Your task to perform on an android device: check out phone information Image 0: 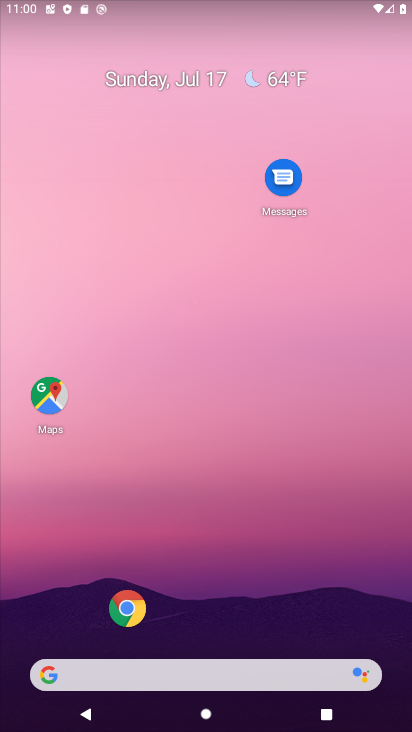
Step 0: drag from (21, 702) to (228, 165)
Your task to perform on an android device: check out phone information Image 1: 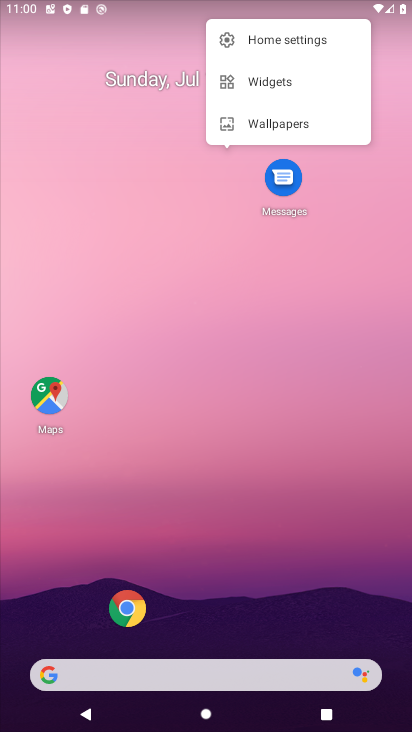
Step 1: drag from (41, 646) to (239, 155)
Your task to perform on an android device: check out phone information Image 2: 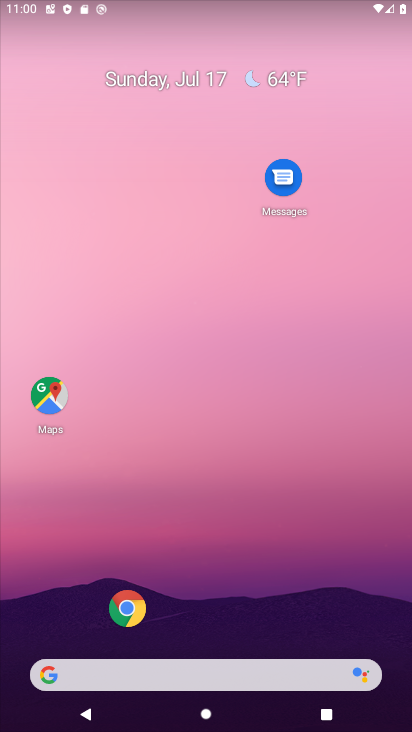
Step 2: click (124, 268)
Your task to perform on an android device: check out phone information Image 3: 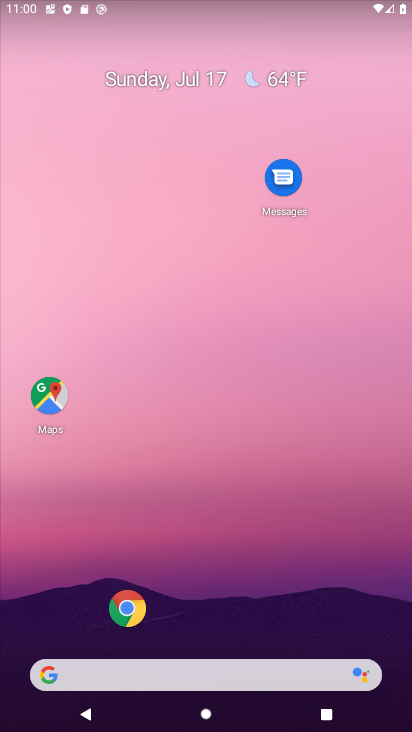
Step 3: drag from (33, 700) to (172, 86)
Your task to perform on an android device: check out phone information Image 4: 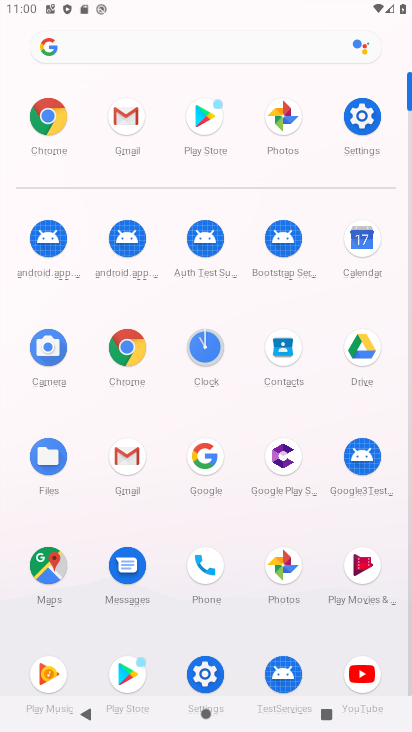
Step 4: click (204, 552)
Your task to perform on an android device: check out phone information Image 5: 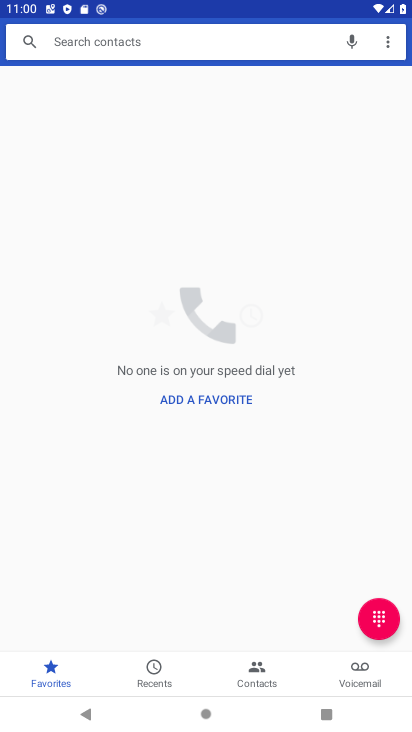
Step 5: click (257, 668)
Your task to perform on an android device: check out phone information Image 6: 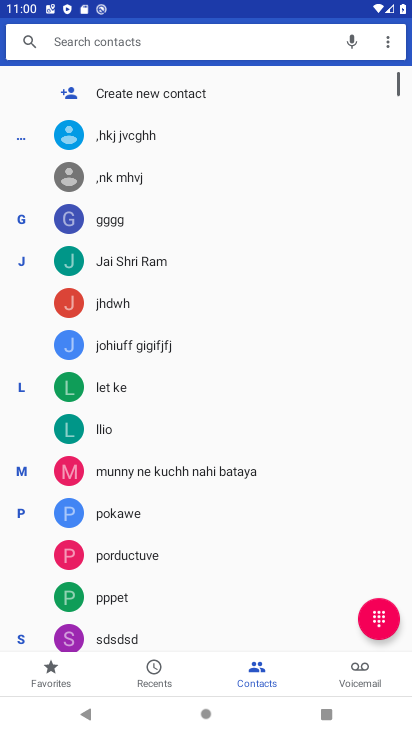
Step 6: task complete